Your task to perform on an android device: toggle sleep mode Image 0: 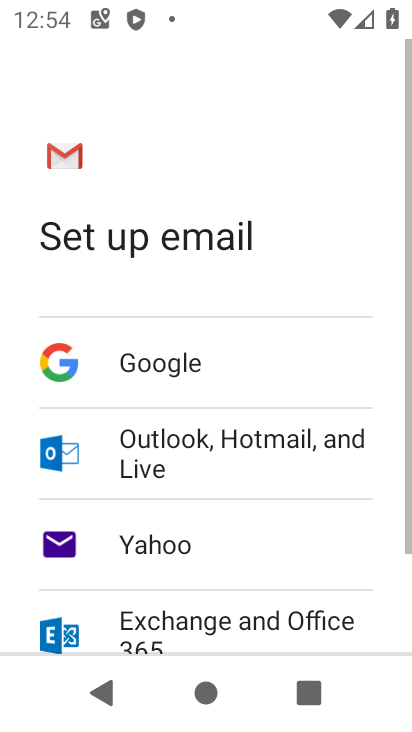
Step 0: press home button
Your task to perform on an android device: toggle sleep mode Image 1: 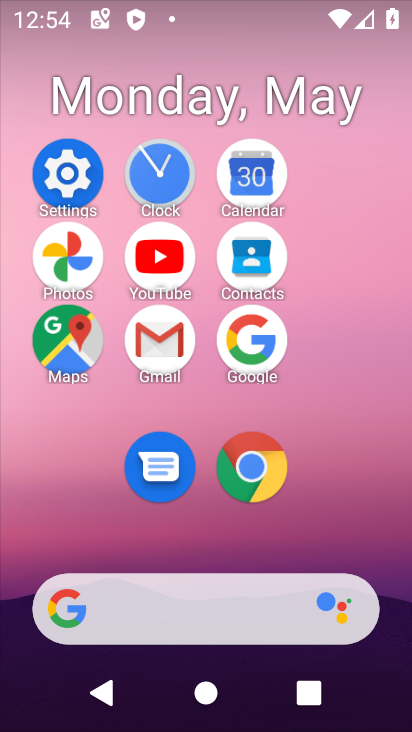
Step 1: click (64, 167)
Your task to perform on an android device: toggle sleep mode Image 2: 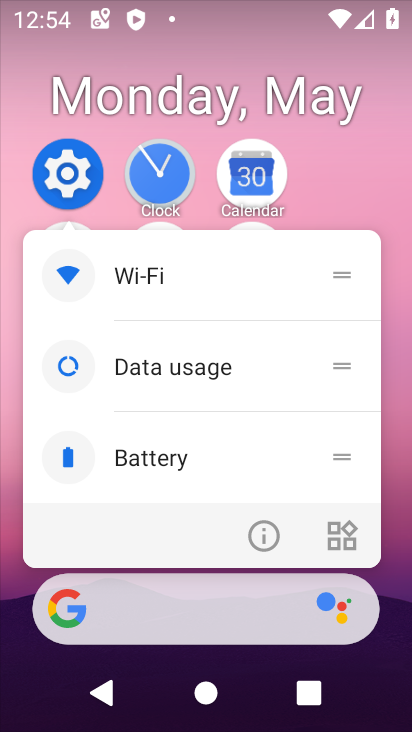
Step 2: click (95, 190)
Your task to perform on an android device: toggle sleep mode Image 3: 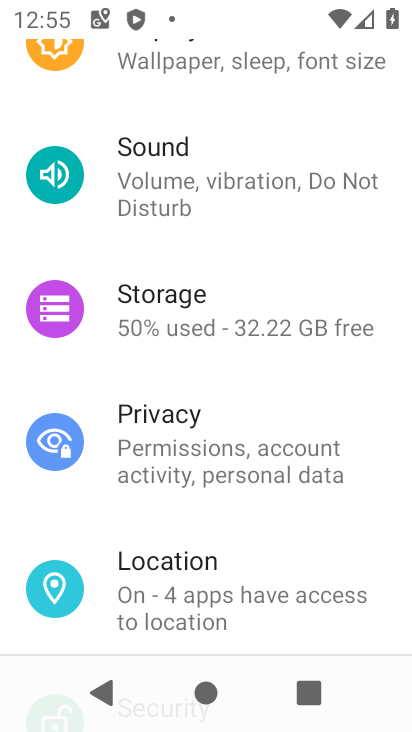
Step 3: drag from (307, 237) to (290, 574)
Your task to perform on an android device: toggle sleep mode Image 4: 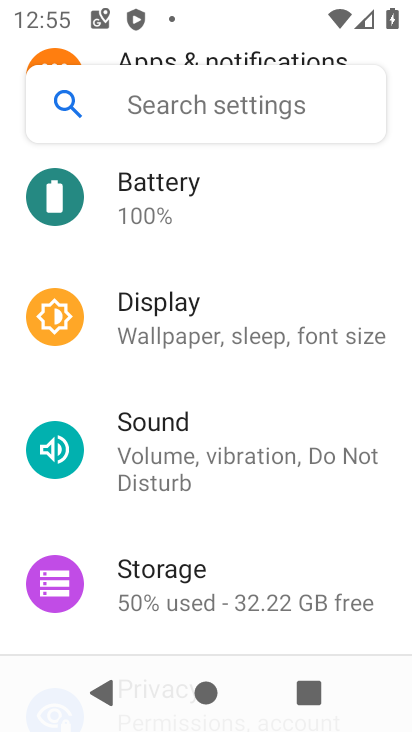
Step 4: click (272, 331)
Your task to perform on an android device: toggle sleep mode Image 5: 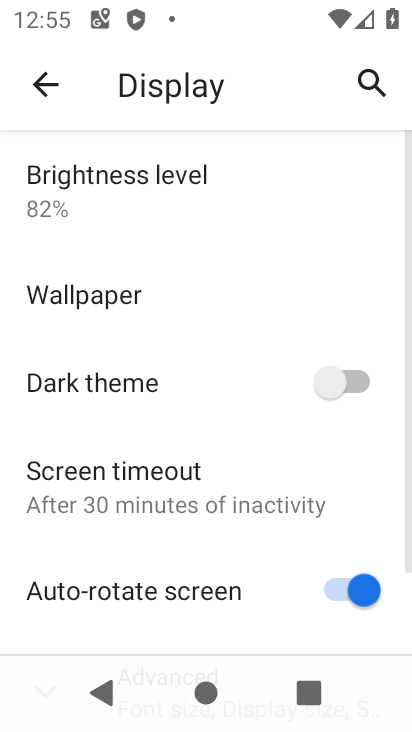
Step 5: click (269, 449)
Your task to perform on an android device: toggle sleep mode Image 6: 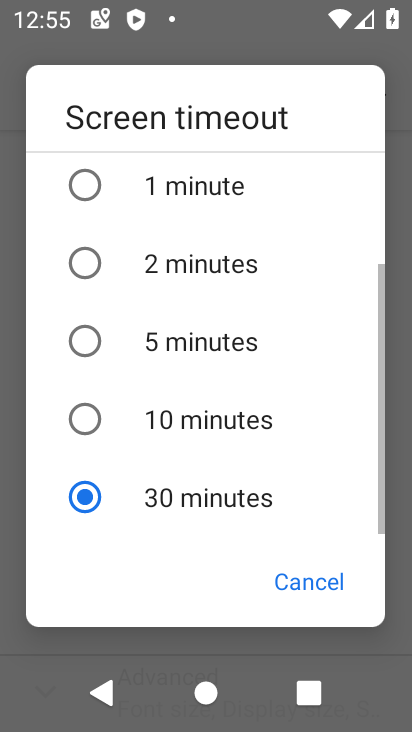
Step 6: click (225, 355)
Your task to perform on an android device: toggle sleep mode Image 7: 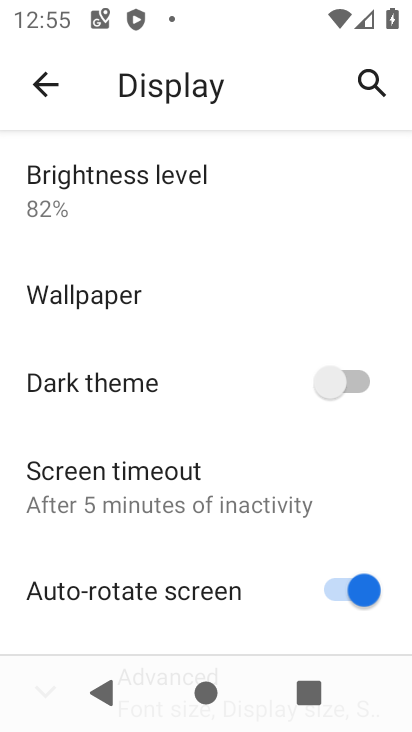
Step 7: task complete